Your task to perform on an android device: Go to settings Image 0: 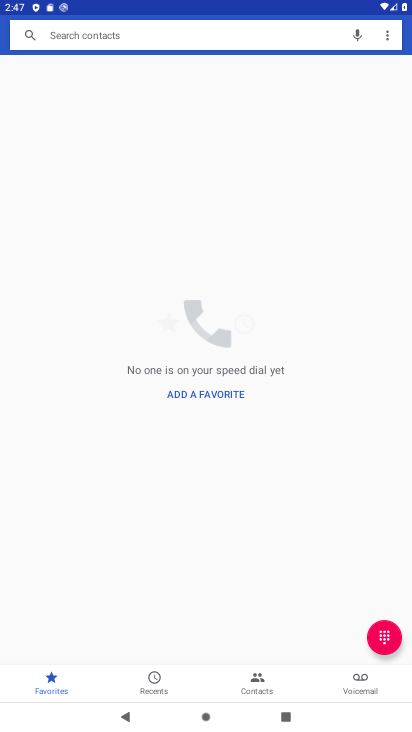
Step 0: press home button
Your task to perform on an android device: Go to settings Image 1: 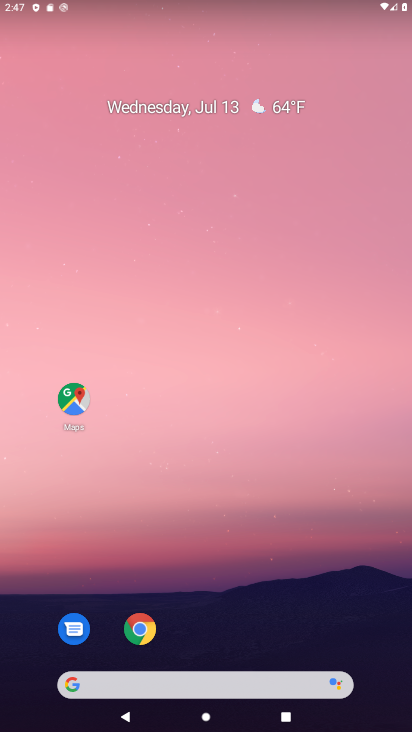
Step 1: drag from (388, 632) to (283, 170)
Your task to perform on an android device: Go to settings Image 2: 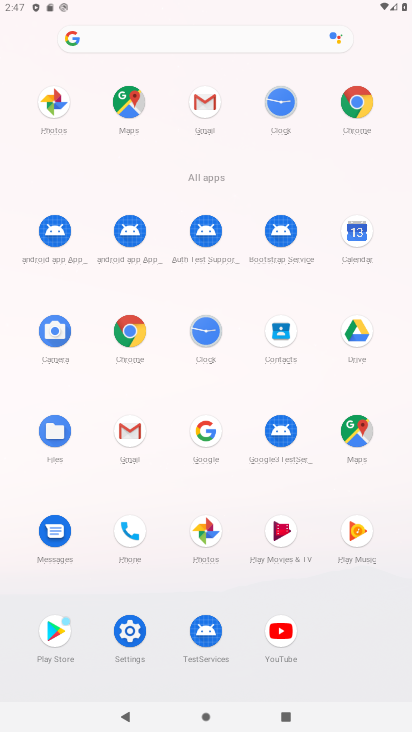
Step 2: click (134, 626)
Your task to perform on an android device: Go to settings Image 3: 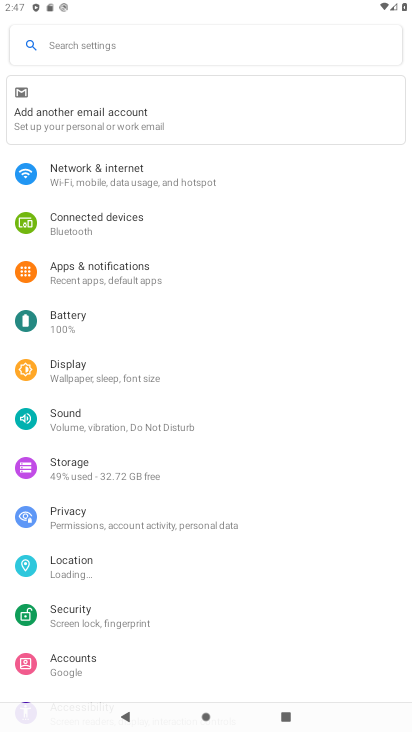
Step 3: task complete